Your task to perform on an android device: Search for the best Nike running shoes on Nike.com Image 0: 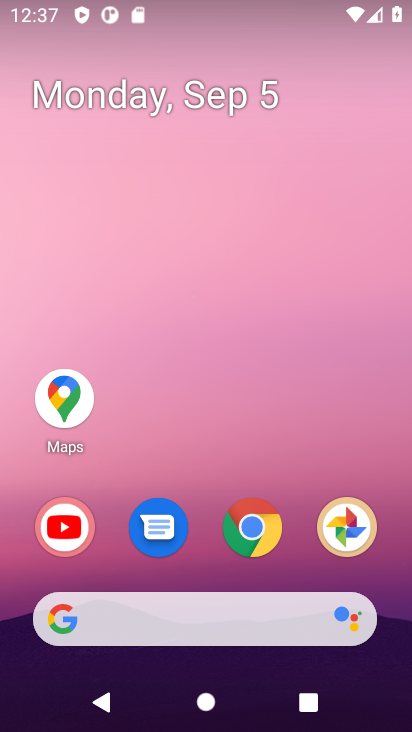
Step 0: click (247, 543)
Your task to perform on an android device: Search for the best Nike running shoes on Nike.com Image 1: 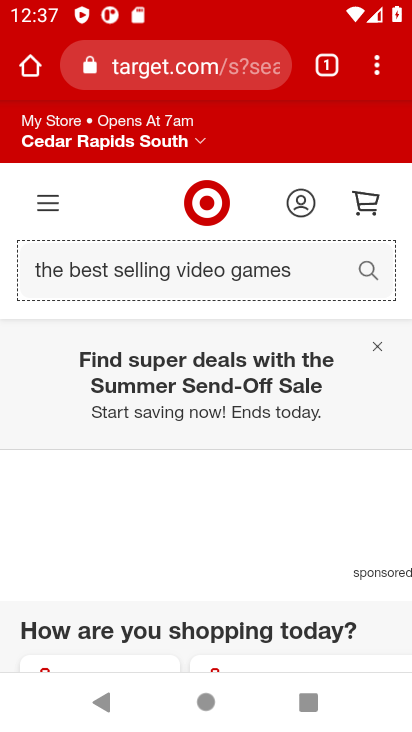
Step 1: click (217, 73)
Your task to perform on an android device: Search for the best Nike running shoes on Nike.com Image 2: 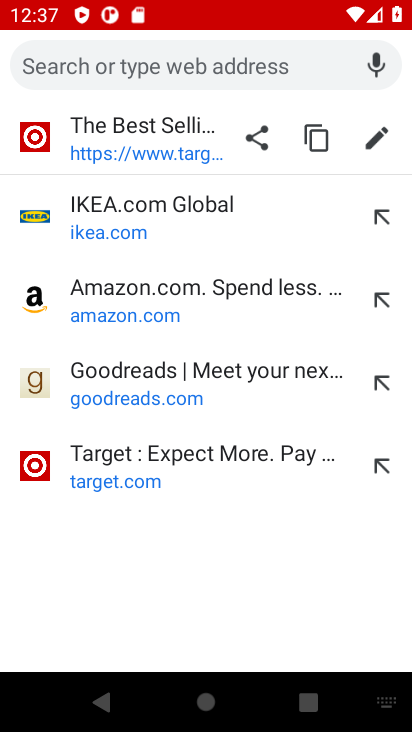
Step 2: type "Nike.com"
Your task to perform on an android device: Search for the best Nike running shoes on Nike.com Image 3: 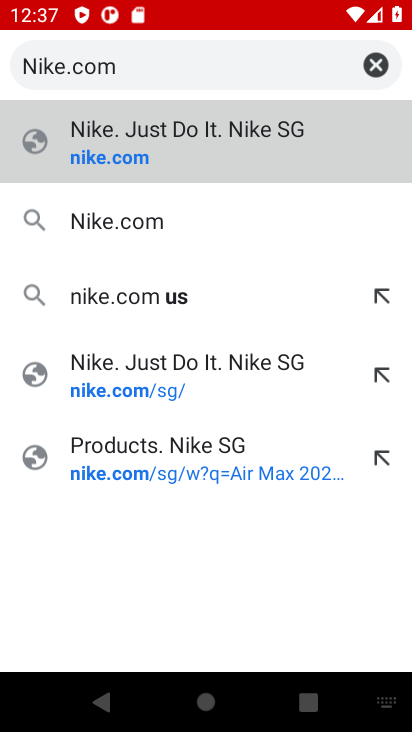
Step 3: click (103, 220)
Your task to perform on an android device: Search for the best Nike running shoes on Nike.com Image 4: 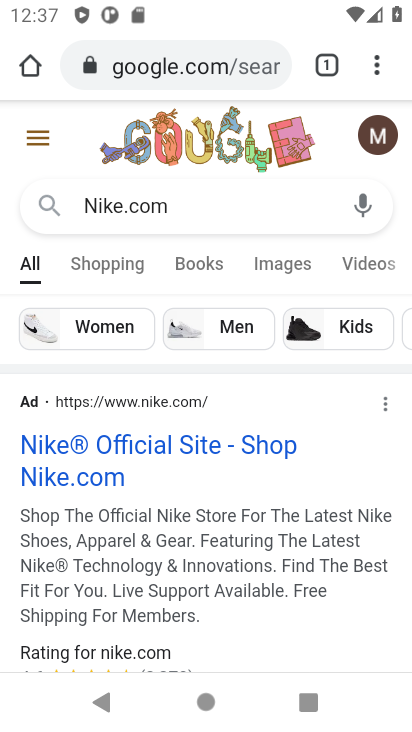
Step 4: click (164, 456)
Your task to perform on an android device: Search for the best Nike running shoes on Nike.com Image 5: 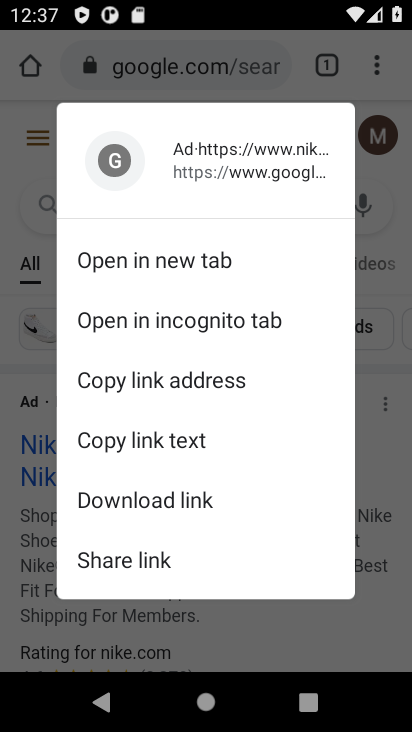
Step 5: click (28, 447)
Your task to perform on an android device: Search for the best Nike running shoes on Nike.com Image 6: 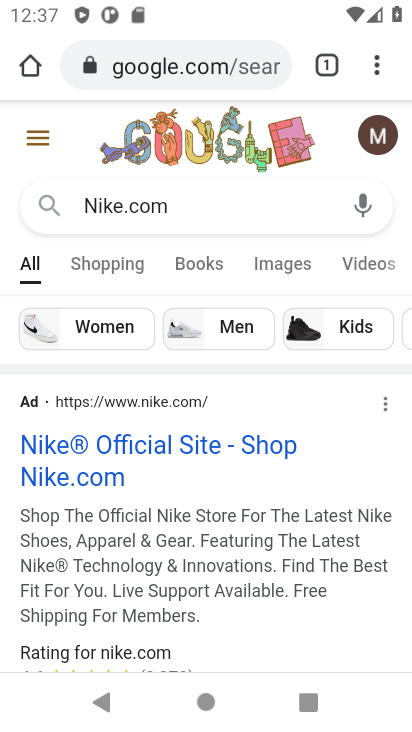
Step 6: click (122, 466)
Your task to perform on an android device: Search for the best Nike running shoes on Nike.com Image 7: 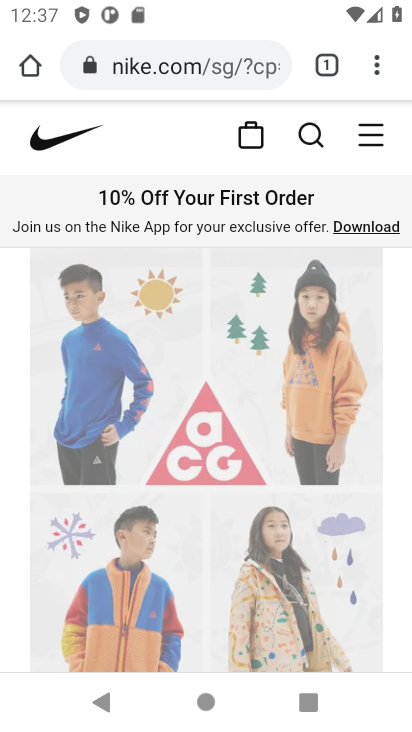
Step 7: click (304, 122)
Your task to perform on an android device: Search for the best Nike running shoes on Nike.com Image 8: 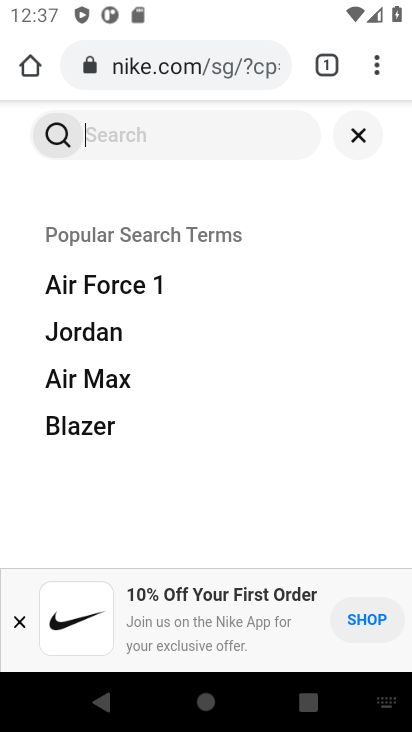
Step 8: type "best running shoes"
Your task to perform on an android device: Search for the best Nike running shoes on Nike.com Image 9: 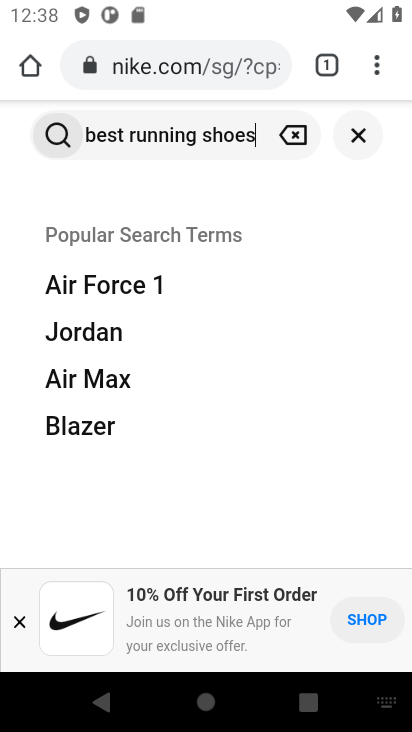
Step 9: click (49, 130)
Your task to perform on an android device: Search for the best Nike running shoes on Nike.com Image 10: 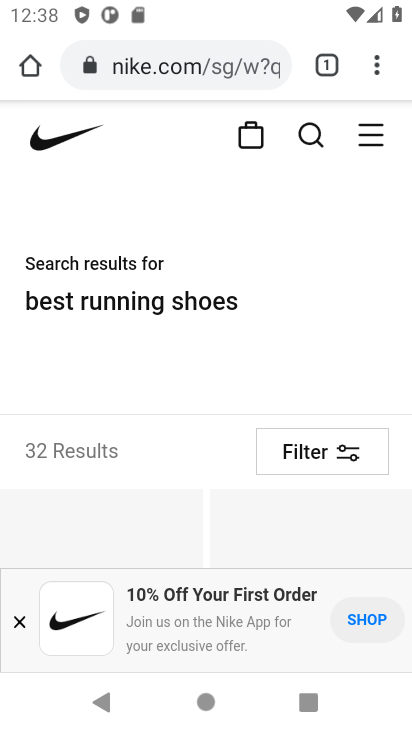
Step 10: task complete